Your task to perform on an android device: set the timer Image 0: 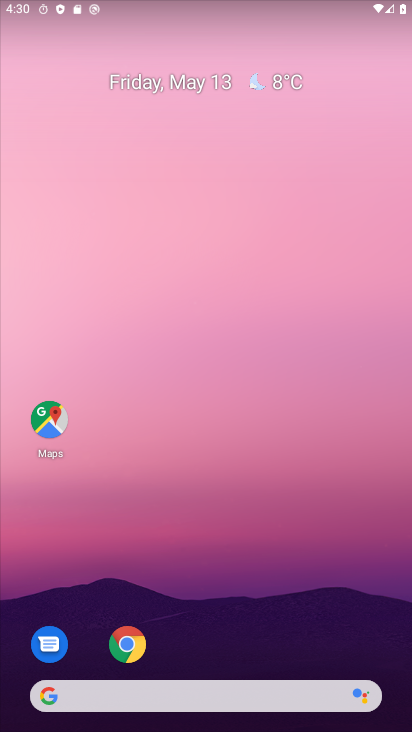
Step 0: drag from (228, 644) to (248, 164)
Your task to perform on an android device: set the timer Image 1: 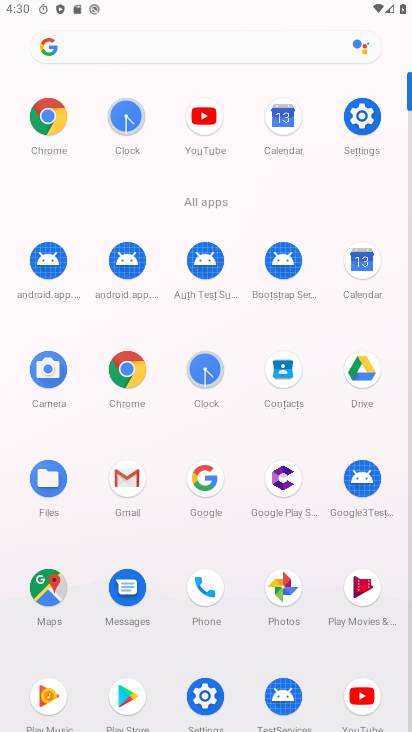
Step 1: click (116, 116)
Your task to perform on an android device: set the timer Image 2: 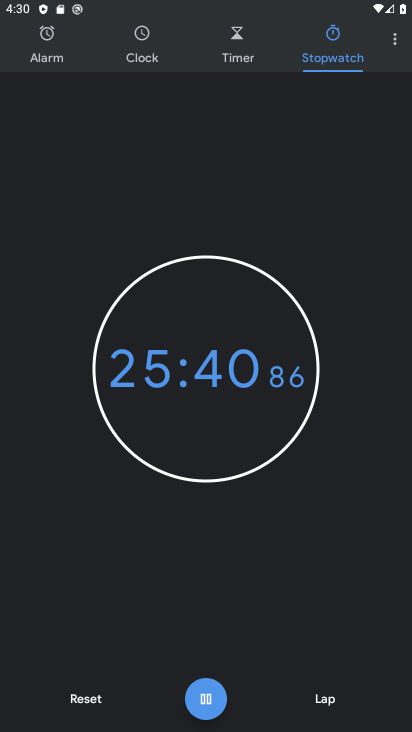
Step 2: click (257, 45)
Your task to perform on an android device: set the timer Image 3: 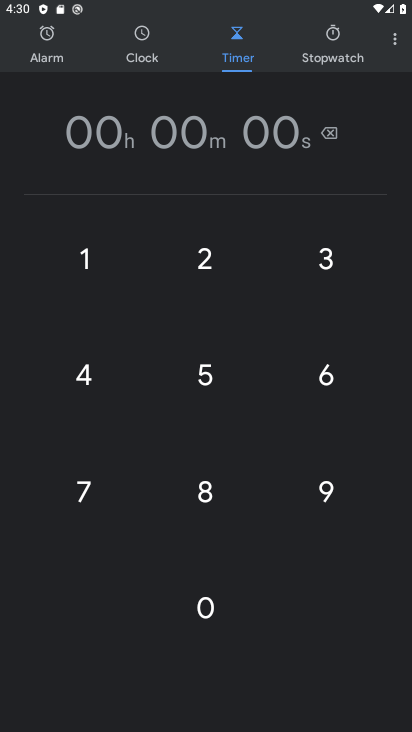
Step 3: click (232, 254)
Your task to perform on an android device: set the timer Image 4: 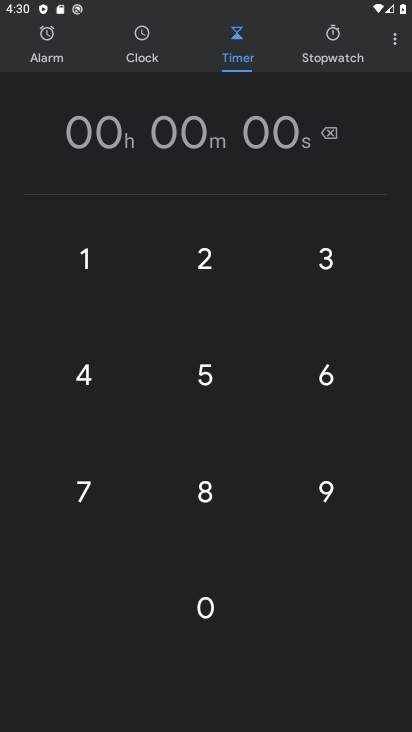
Step 4: click (232, 254)
Your task to perform on an android device: set the timer Image 5: 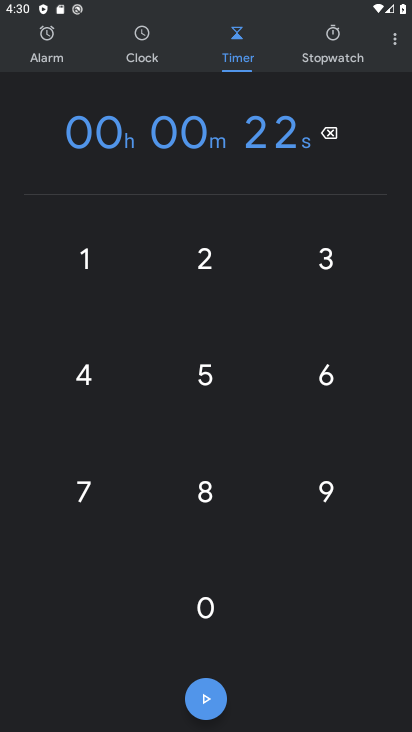
Step 5: click (197, 708)
Your task to perform on an android device: set the timer Image 6: 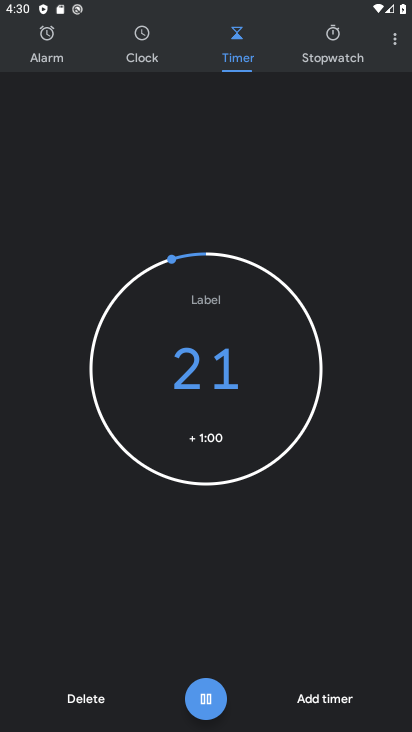
Step 6: task complete